Your task to perform on an android device: check data usage Image 0: 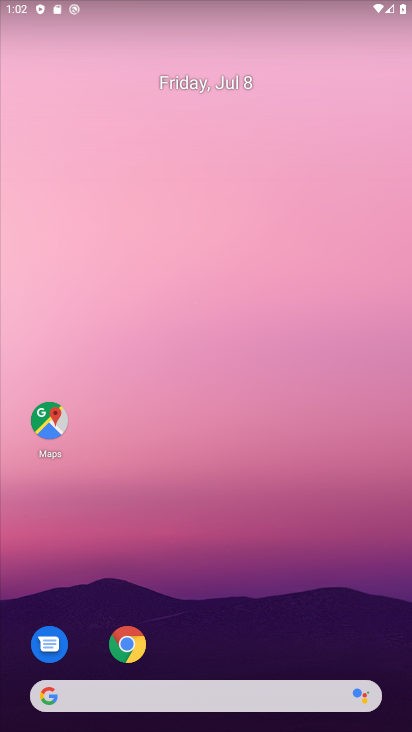
Step 0: press home button
Your task to perform on an android device: check data usage Image 1: 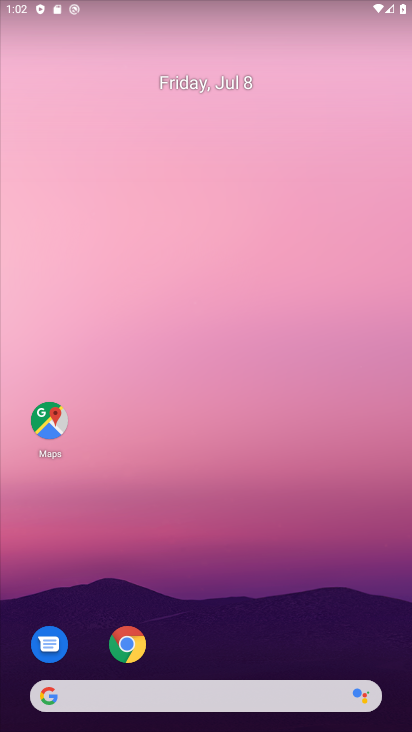
Step 1: drag from (303, 548) to (330, 156)
Your task to perform on an android device: check data usage Image 2: 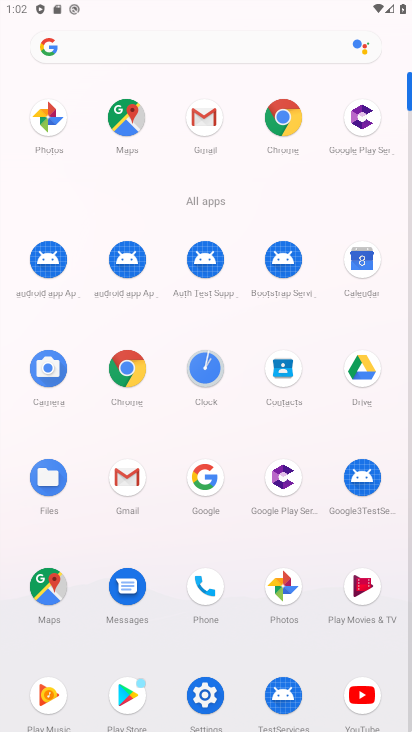
Step 2: click (211, 697)
Your task to perform on an android device: check data usage Image 3: 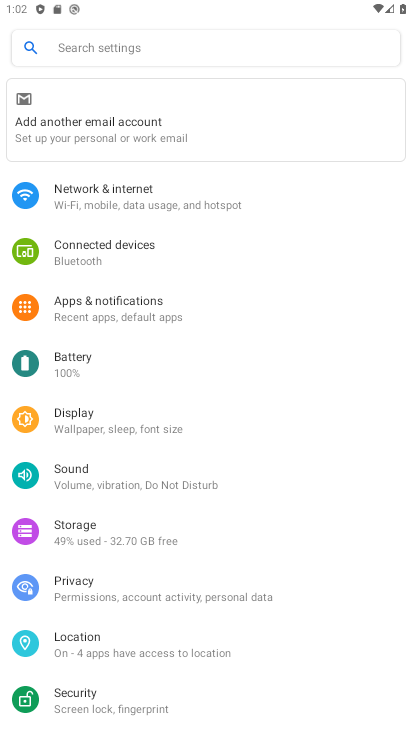
Step 3: click (120, 191)
Your task to perform on an android device: check data usage Image 4: 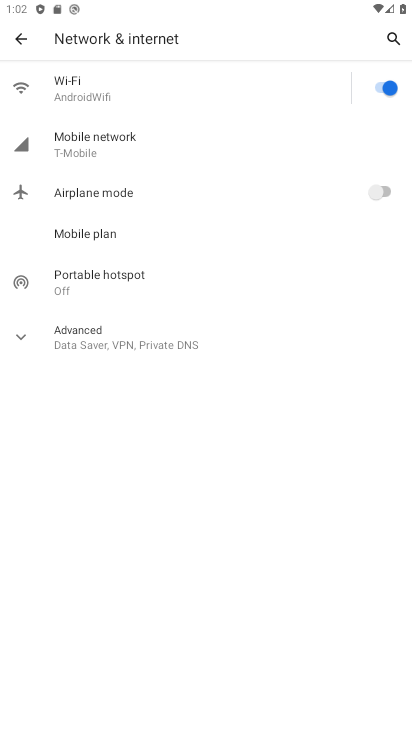
Step 4: click (82, 147)
Your task to perform on an android device: check data usage Image 5: 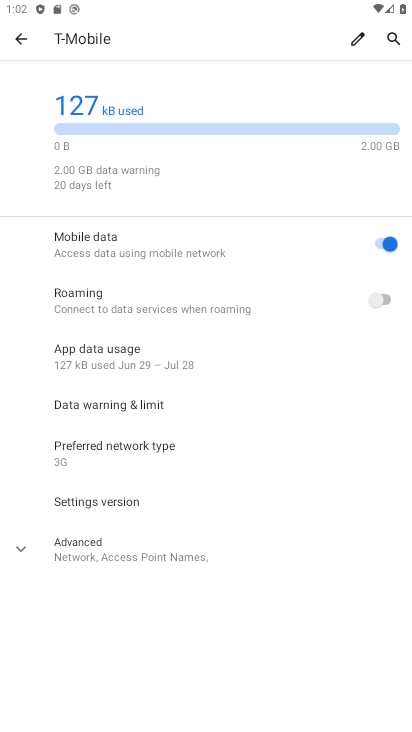
Step 5: task complete